Your task to perform on an android device: open device folders in google photos Image 0: 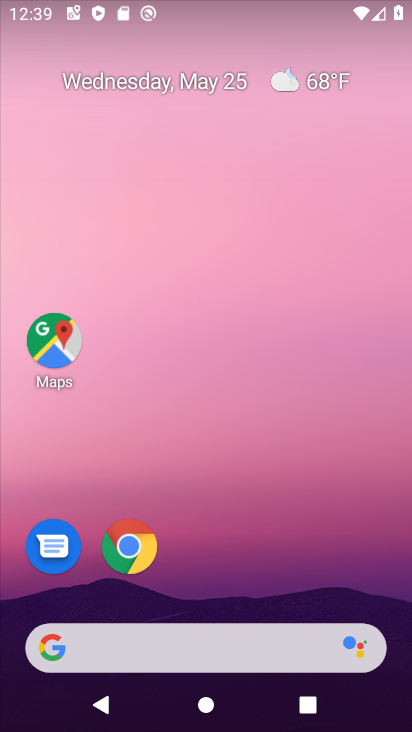
Step 0: drag from (276, 596) to (218, 13)
Your task to perform on an android device: open device folders in google photos Image 1: 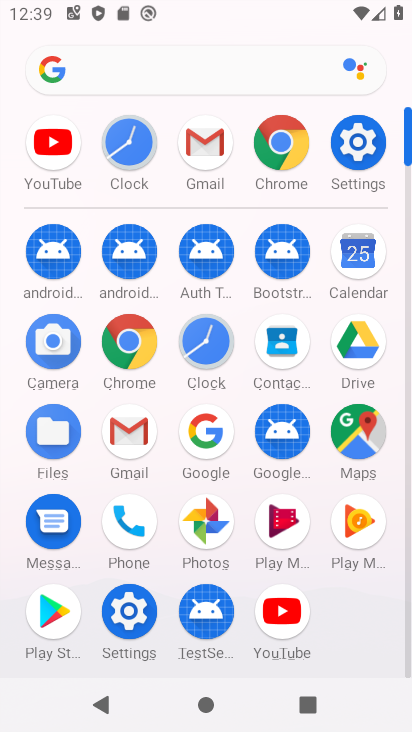
Step 1: click (220, 500)
Your task to perform on an android device: open device folders in google photos Image 2: 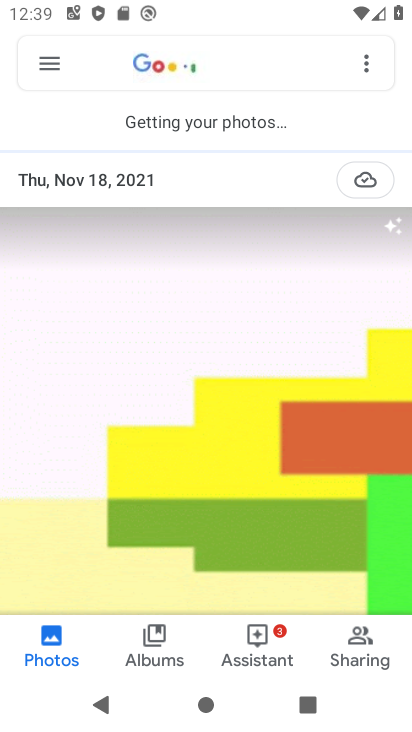
Step 2: click (41, 62)
Your task to perform on an android device: open device folders in google photos Image 3: 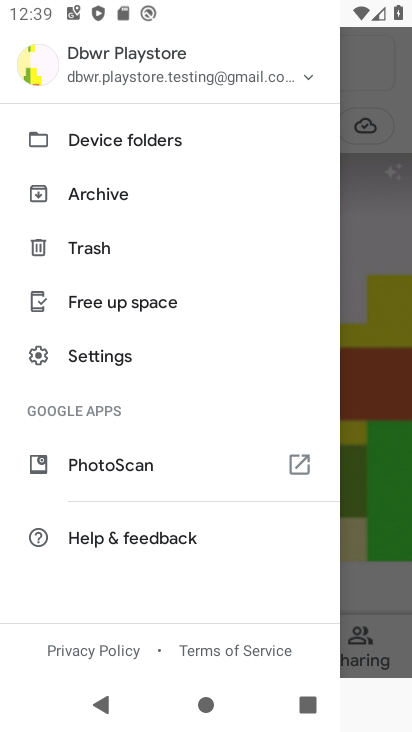
Step 3: click (137, 153)
Your task to perform on an android device: open device folders in google photos Image 4: 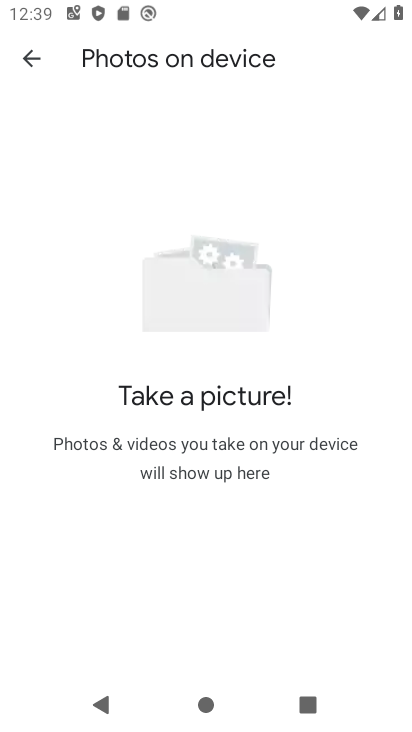
Step 4: task complete